Your task to perform on an android device: What's the weather going to be this weekend? Image 0: 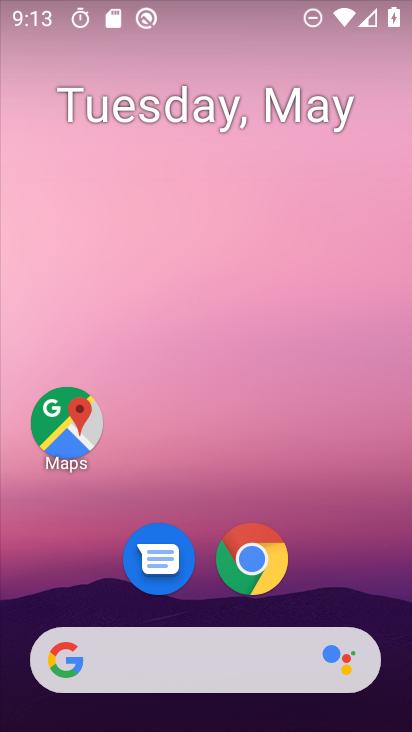
Step 0: drag from (397, 635) to (291, 172)
Your task to perform on an android device: What's the weather going to be this weekend? Image 1: 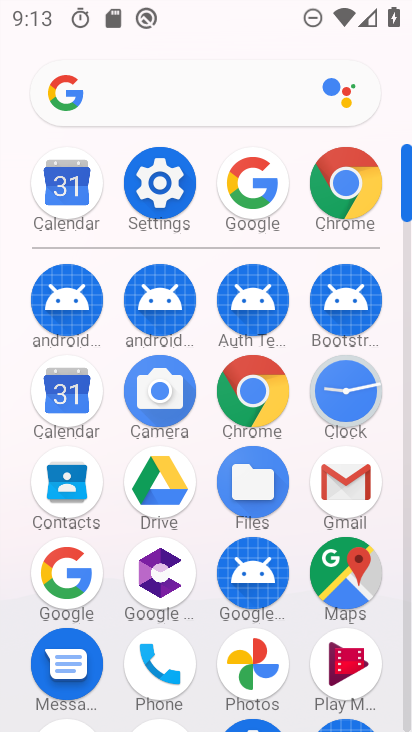
Step 1: click (264, 182)
Your task to perform on an android device: What's the weather going to be this weekend? Image 2: 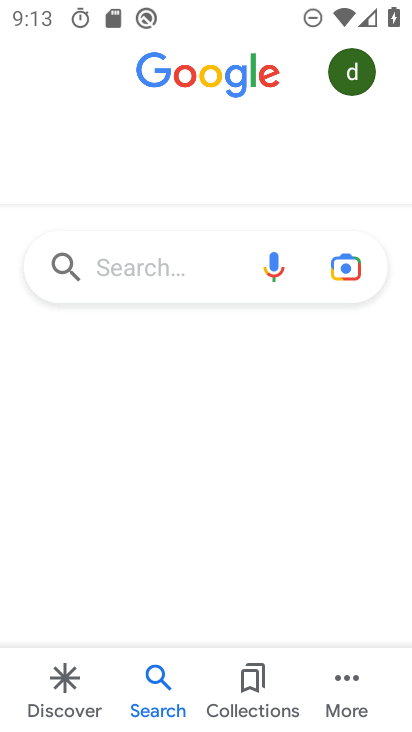
Step 2: click (160, 268)
Your task to perform on an android device: What's the weather going to be this weekend? Image 3: 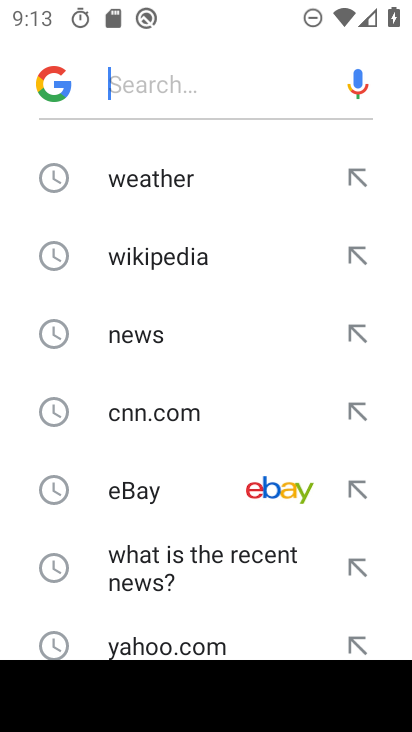
Step 3: drag from (157, 590) to (193, 174)
Your task to perform on an android device: What's the weather going to be this weekend? Image 4: 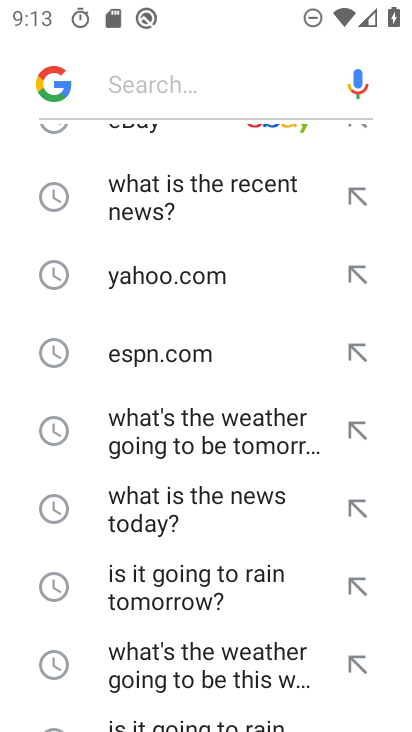
Step 4: click (184, 672)
Your task to perform on an android device: What's the weather going to be this weekend? Image 5: 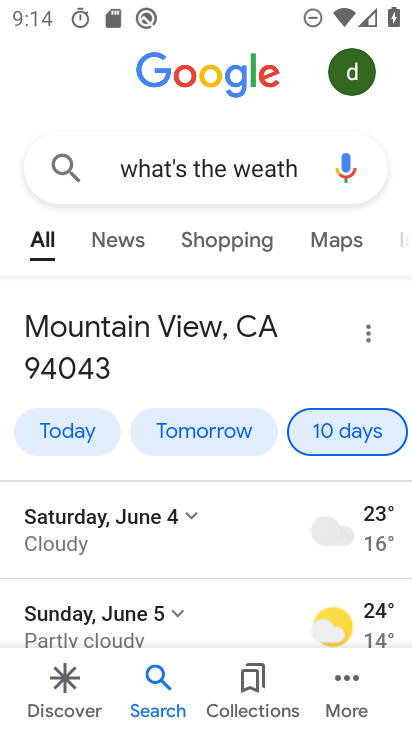
Step 5: task complete